Your task to perform on an android device: Go to ESPN.com Image 0: 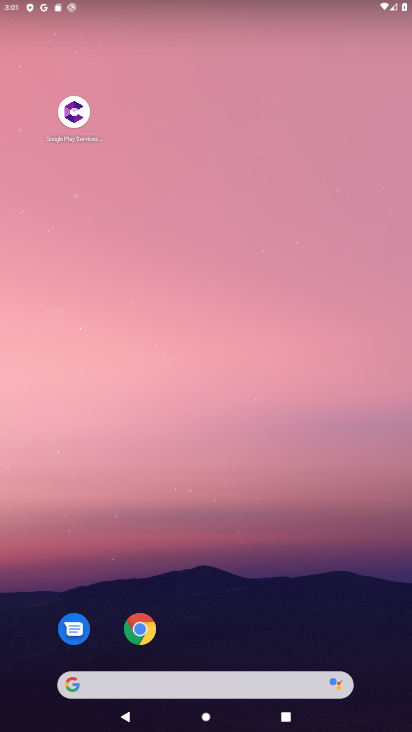
Step 0: click (136, 628)
Your task to perform on an android device: Go to ESPN.com Image 1: 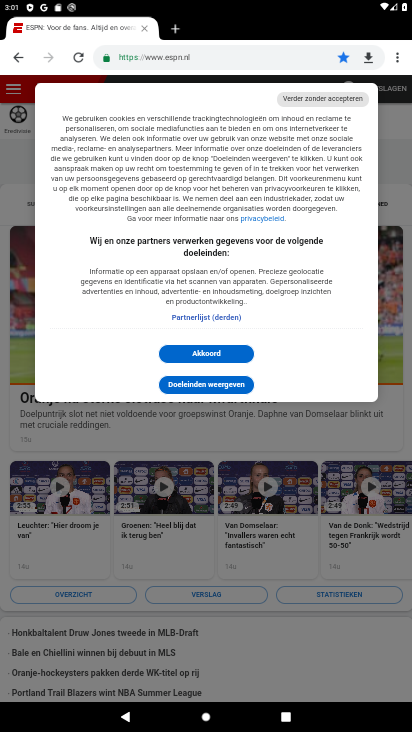
Step 1: click (172, 30)
Your task to perform on an android device: Go to ESPN.com Image 2: 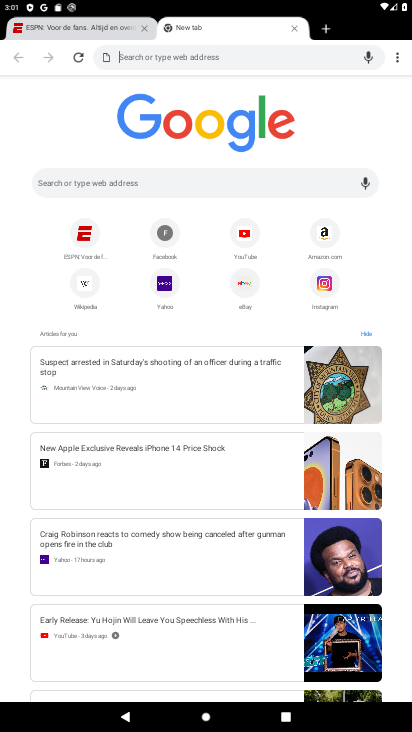
Step 2: click (84, 230)
Your task to perform on an android device: Go to ESPN.com Image 3: 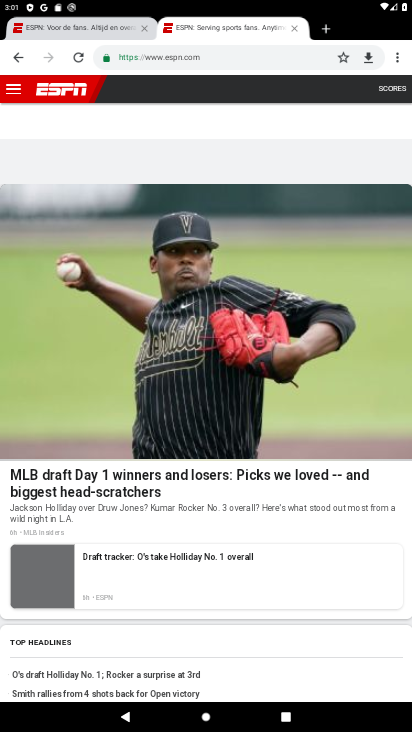
Step 3: task complete